Your task to perform on an android device: delete the emails in spam in the gmail app Image 0: 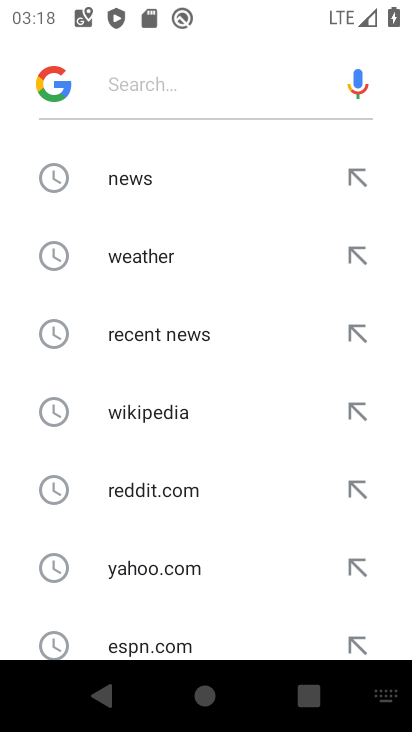
Step 0: press home button
Your task to perform on an android device: delete the emails in spam in the gmail app Image 1: 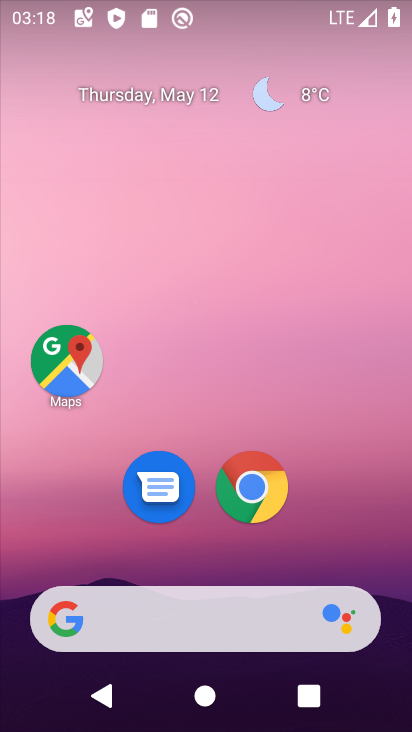
Step 1: drag from (301, 513) to (336, 55)
Your task to perform on an android device: delete the emails in spam in the gmail app Image 2: 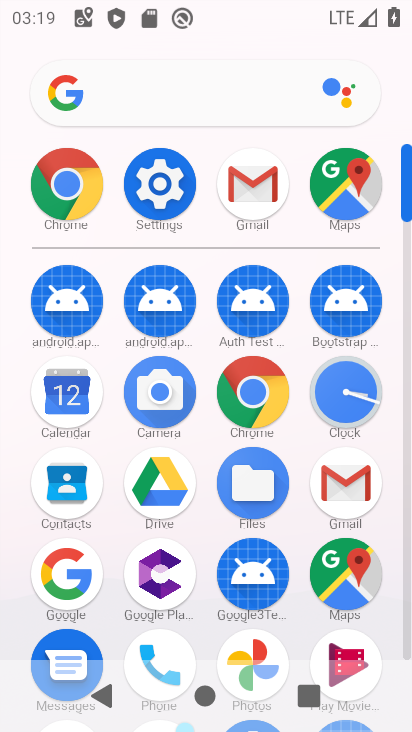
Step 2: click (250, 192)
Your task to perform on an android device: delete the emails in spam in the gmail app Image 3: 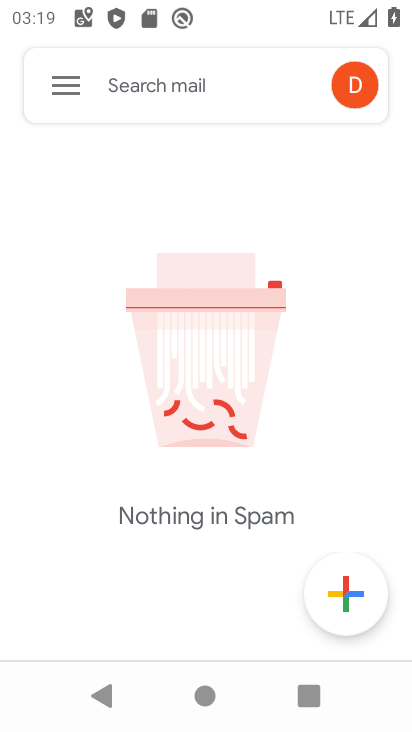
Step 3: click (71, 79)
Your task to perform on an android device: delete the emails in spam in the gmail app Image 4: 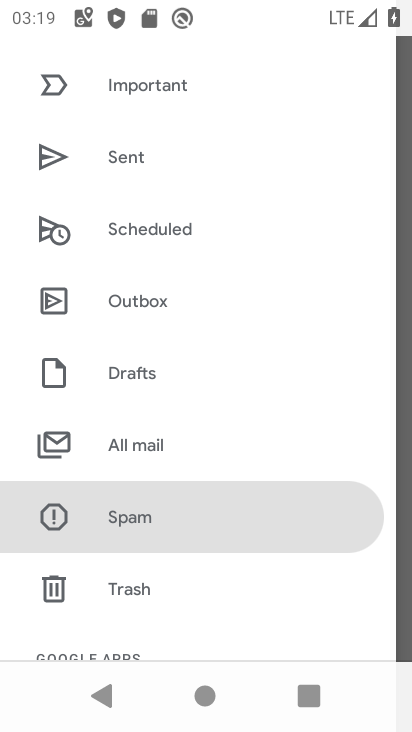
Step 4: drag from (193, 615) to (218, 396)
Your task to perform on an android device: delete the emails in spam in the gmail app Image 5: 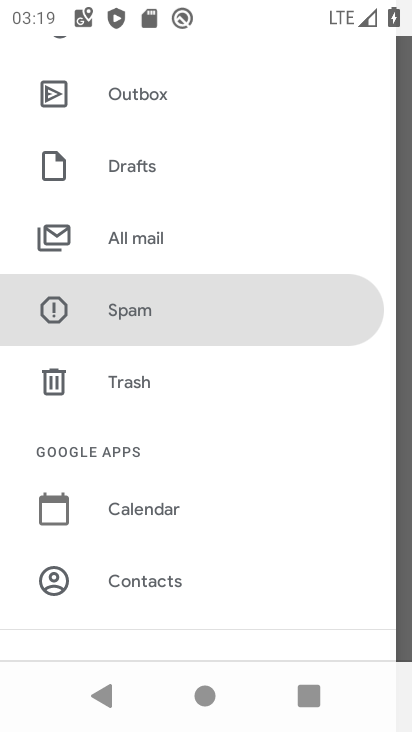
Step 5: click (124, 314)
Your task to perform on an android device: delete the emails in spam in the gmail app Image 6: 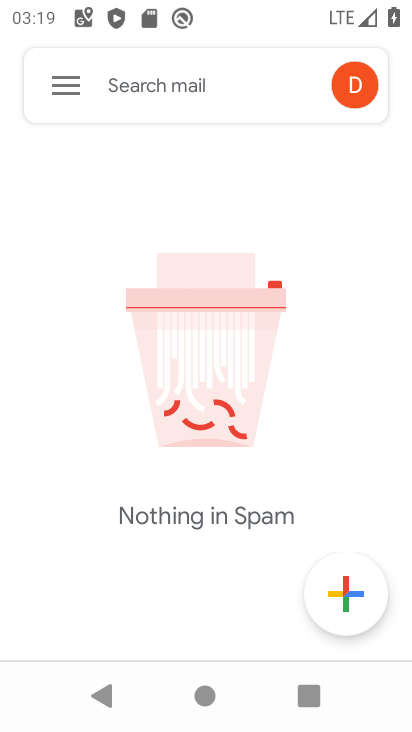
Step 6: task complete